Your task to perform on an android device: Open Maps and search for coffee Image 0: 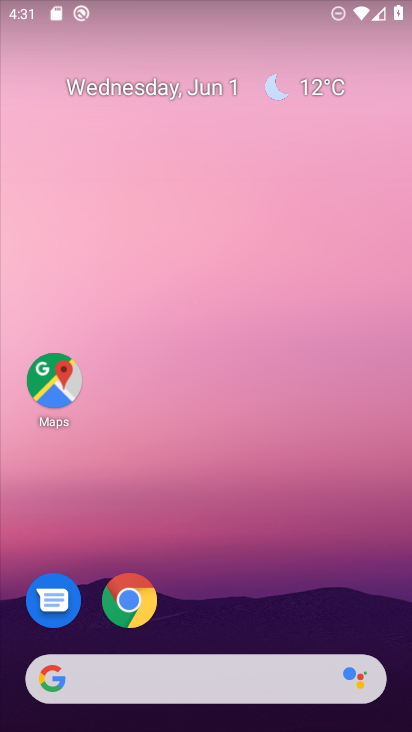
Step 0: click (57, 378)
Your task to perform on an android device: Open Maps and search for coffee Image 1: 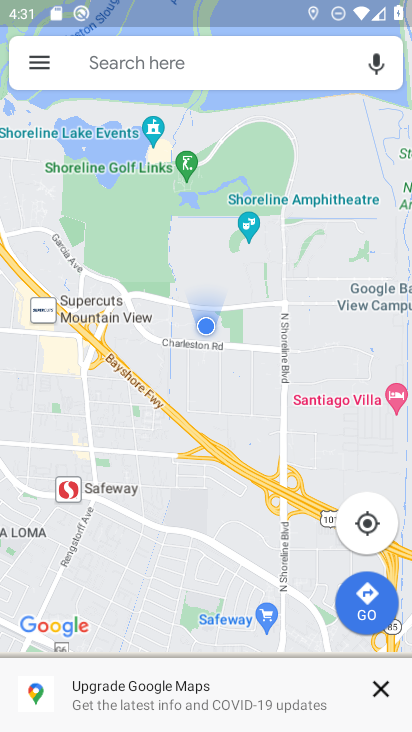
Step 1: click (152, 65)
Your task to perform on an android device: Open Maps and search for coffee Image 2: 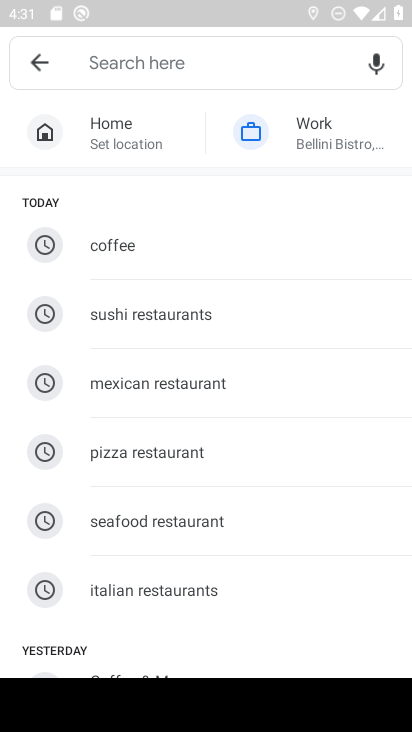
Step 2: type "coffee"
Your task to perform on an android device: Open Maps and search for coffee Image 3: 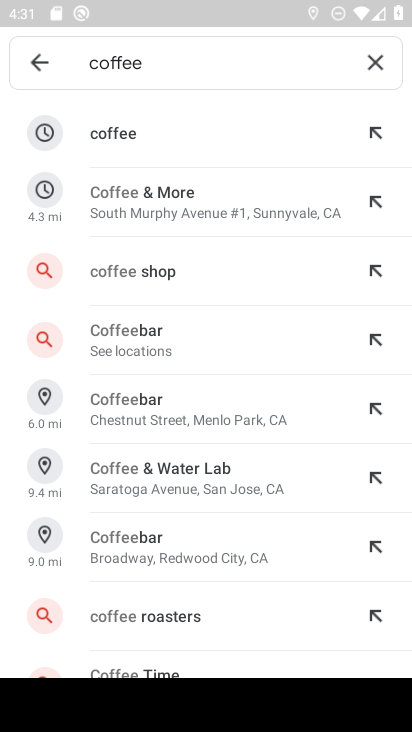
Step 3: click (140, 130)
Your task to perform on an android device: Open Maps and search for coffee Image 4: 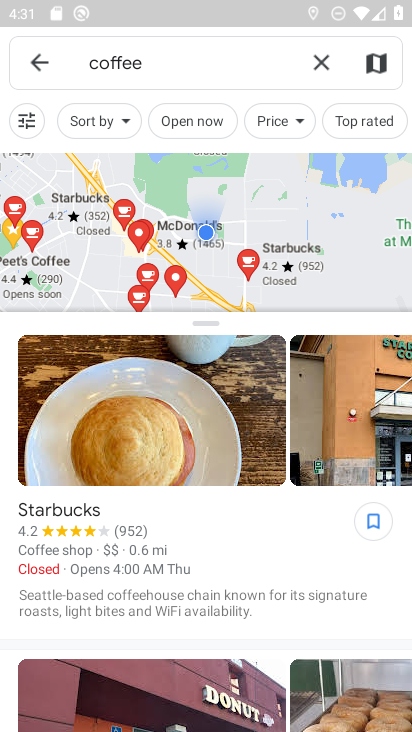
Step 4: task complete